Your task to perform on an android device: Open sound settings Image 0: 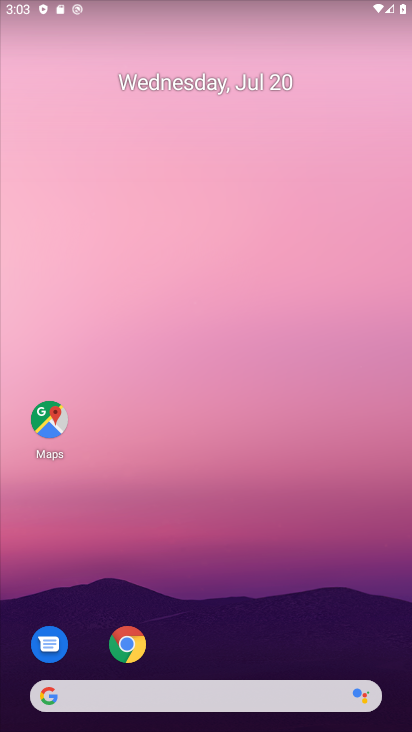
Step 0: drag from (101, 410) to (232, 0)
Your task to perform on an android device: Open sound settings Image 1: 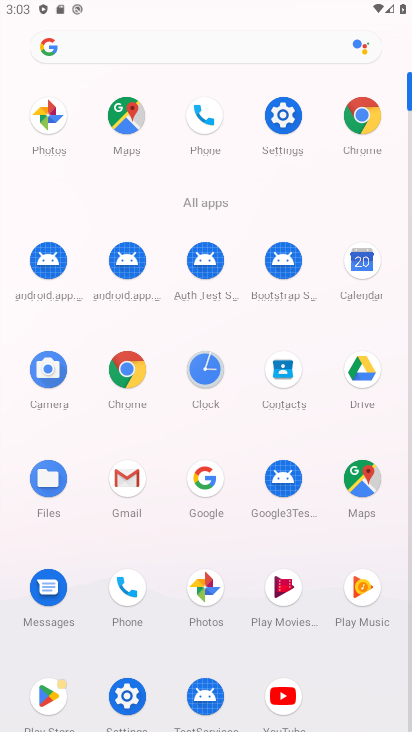
Step 1: click (131, 702)
Your task to perform on an android device: Open sound settings Image 2: 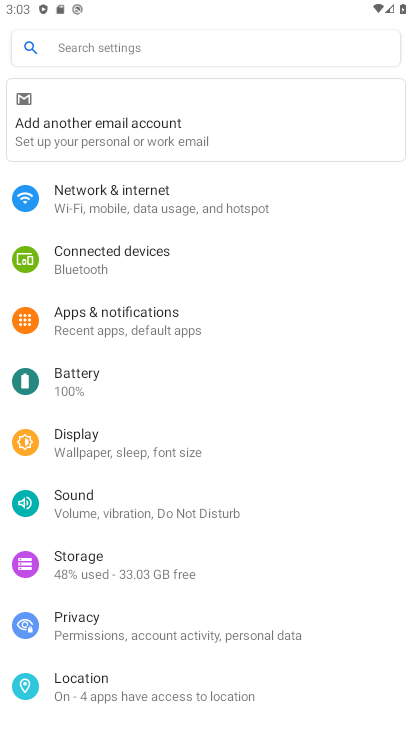
Step 2: click (80, 500)
Your task to perform on an android device: Open sound settings Image 3: 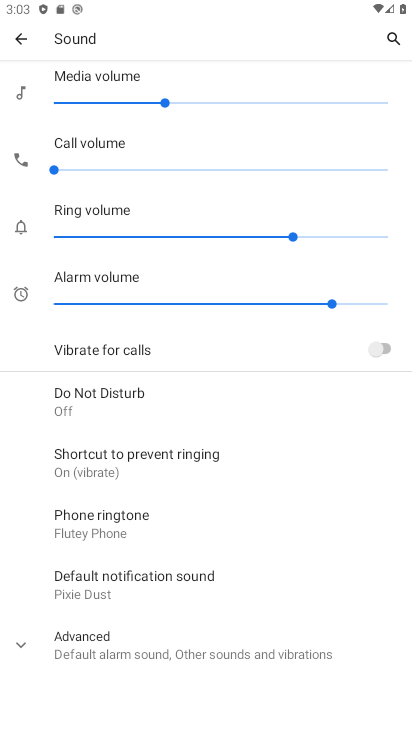
Step 3: task complete